Your task to perform on an android device: turn off priority inbox in the gmail app Image 0: 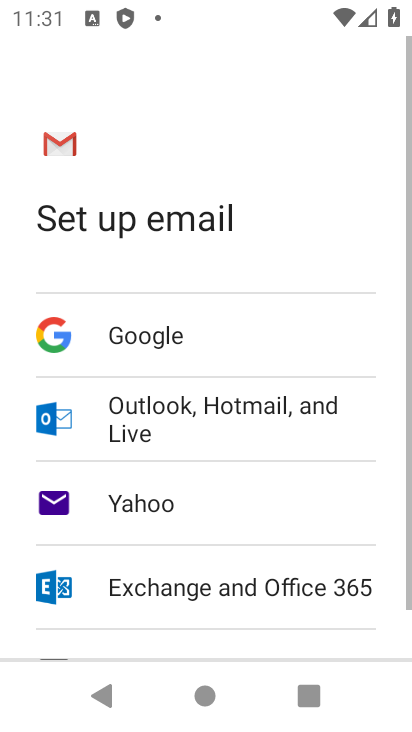
Step 0: press home button
Your task to perform on an android device: turn off priority inbox in the gmail app Image 1: 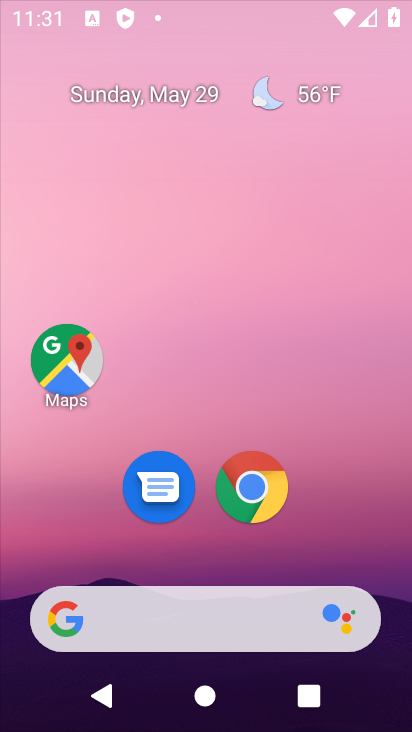
Step 1: drag from (224, 608) to (200, 205)
Your task to perform on an android device: turn off priority inbox in the gmail app Image 2: 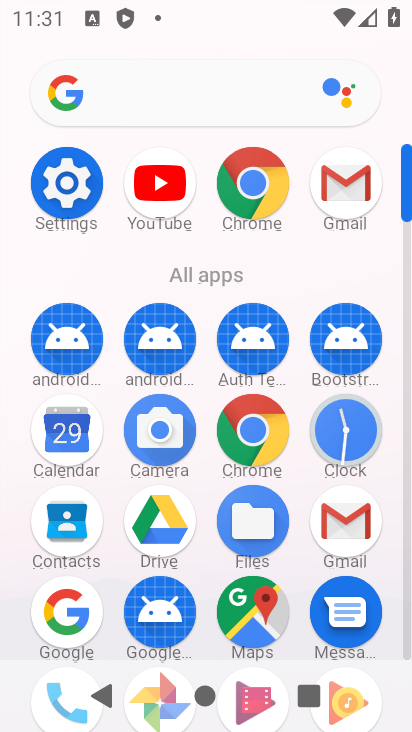
Step 2: click (345, 521)
Your task to perform on an android device: turn off priority inbox in the gmail app Image 3: 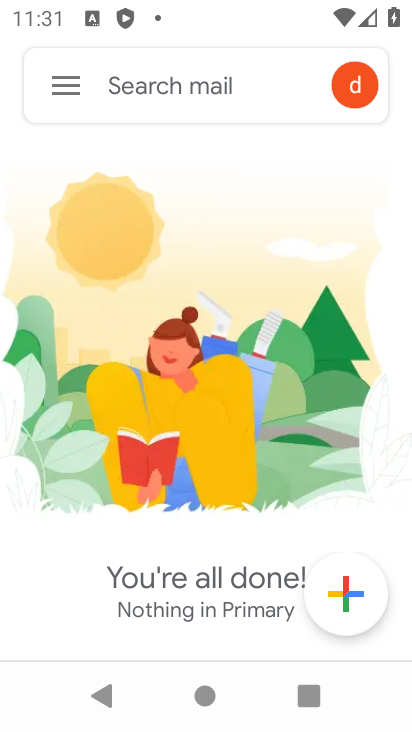
Step 3: click (72, 87)
Your task to perform on an android device: turn off priority inbox in the gmail app Image 4: 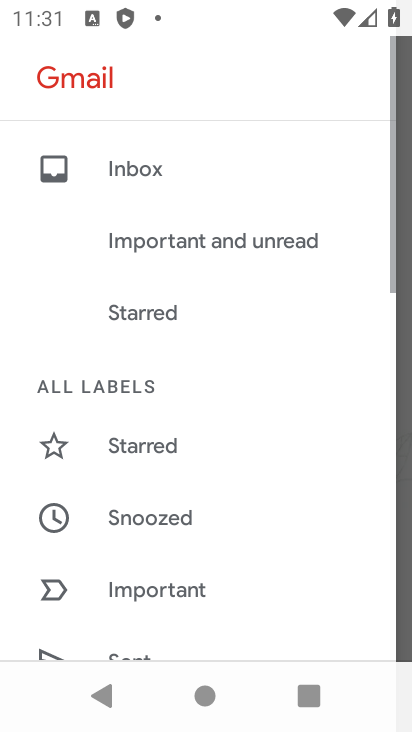
Step 4: drag from (114, 562) to (147, 199)
Your task to perform on an android device: turn off priority inbox in the gmail app Image 5: 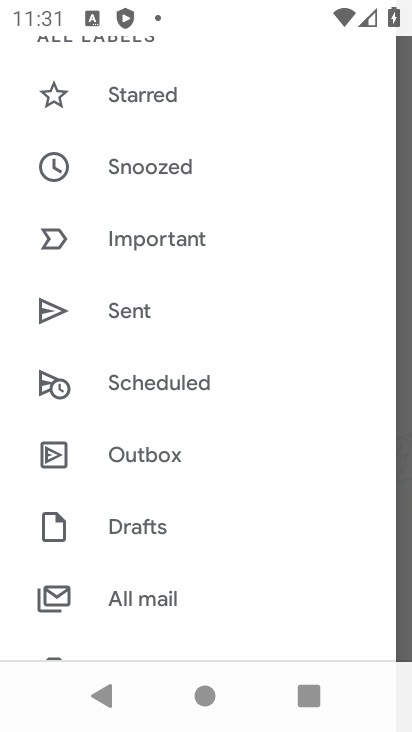
Step 5: drag from (155, 502) to (183, 167)
Your task to perform on an android device: turn off priority inbox in the gmail app Image 6: 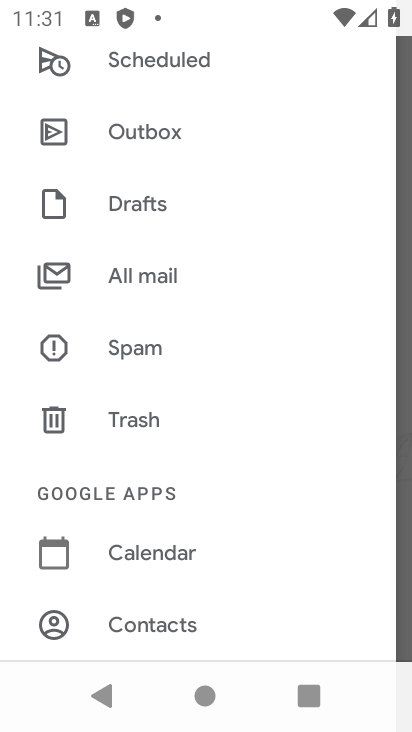
Step 6: drag from (148, 503) to (155, 74)
Your task to perform on an android device: turn off priority inbox in the gmail app Image 7: 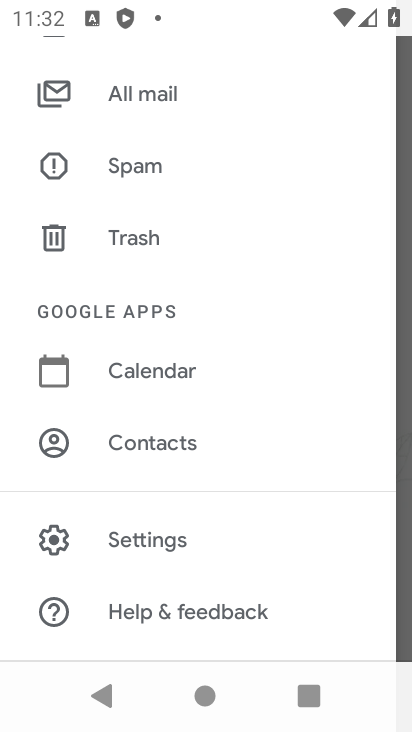
Step 7: click (120, 543)
Your task to perform on an android device: turn off priority inbox in the gmail app Image 8: 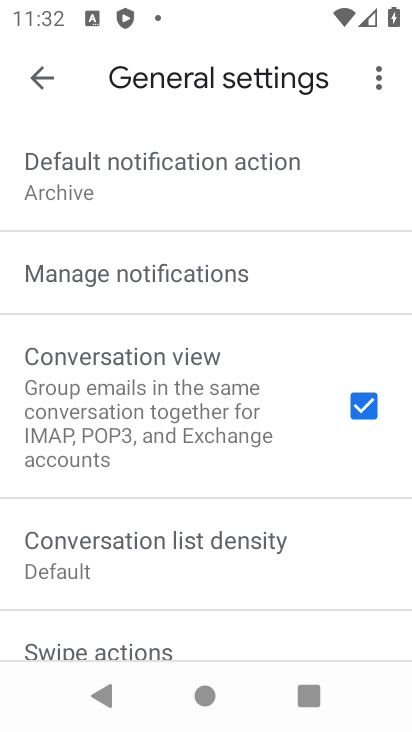
Step 8: click (44, 79)
Your task to perform on an android device: turn off priority inbox in the gmail app Image 9: 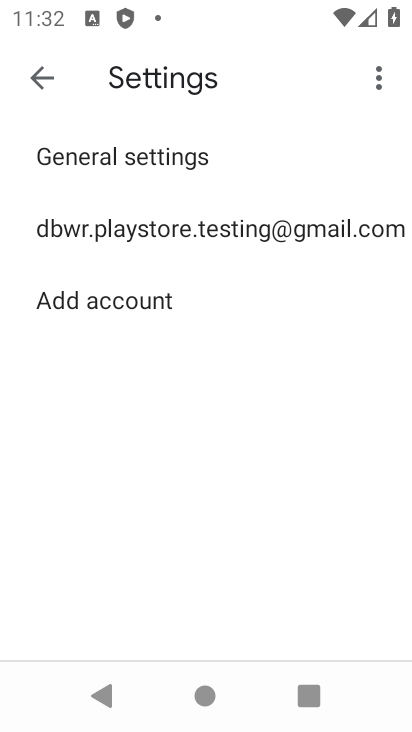
Step 9: click (121, 221)
Your task to perform on an android device: turn off priority inbox in the gmail app Image 10: 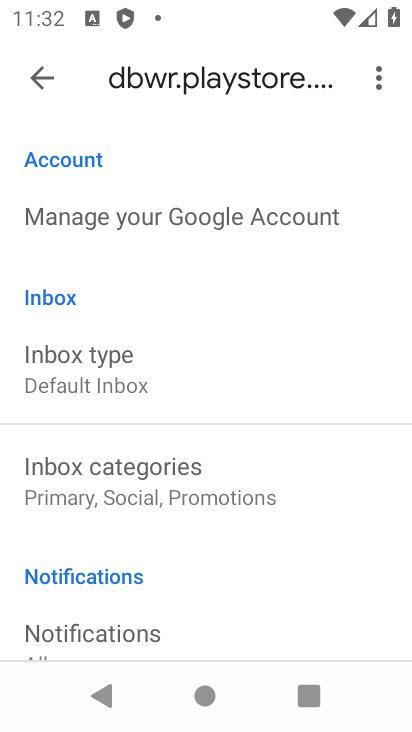
Step 10: click (93, 416)
Your task to perform on an android device: turn off priority inbox in the gmail app Image 11: 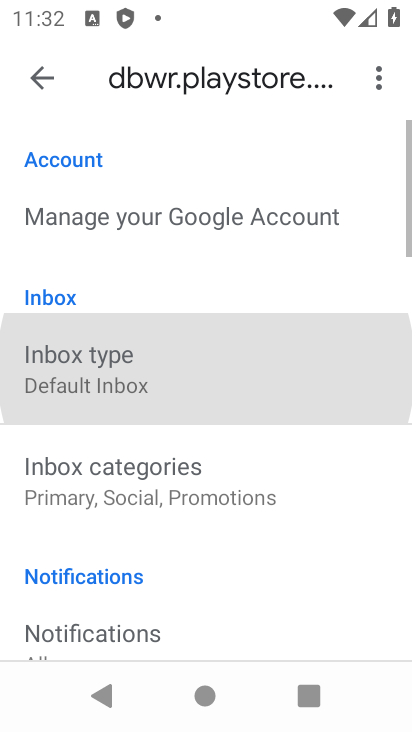
Step 11: drag from (128, 380) to (145, 136)
Your task to perform on an android device: turn off priority inbox in the gmail app Image 12: 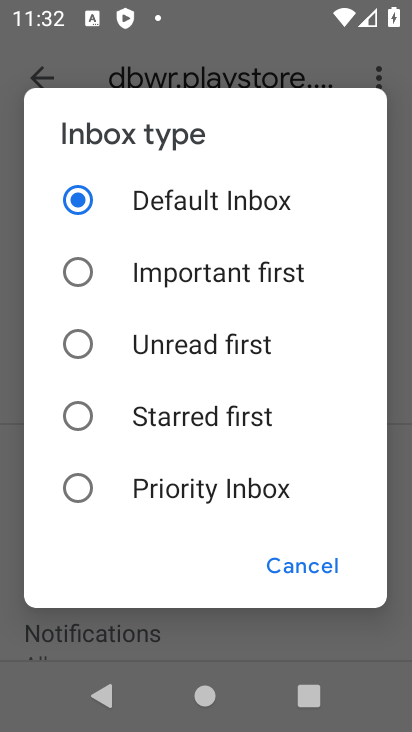
Step 12: click (326, 572)
Your task to perform on an android device: turn off priority inbox in the gmail app Image 13: 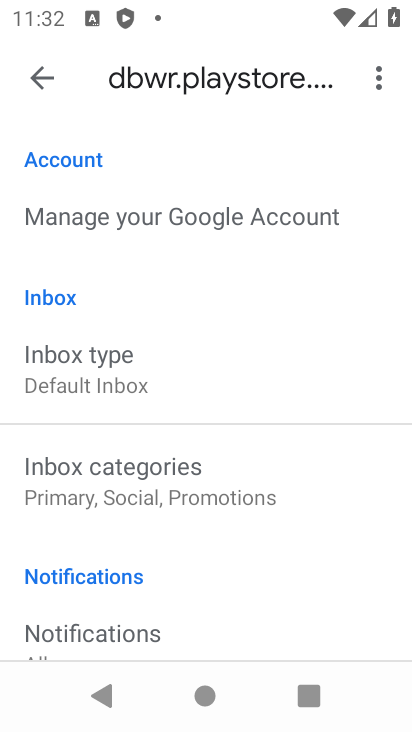
Step 13: drag from (208, 546) to (246, 159)
Your task to perform on an android device: turn off priority inbox in the gmail app Image 14: 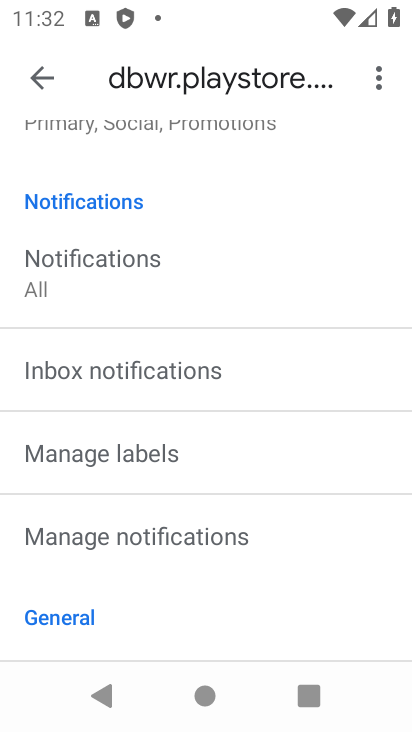
Step 14: drag from (169, 545) to (189, 146)
Your task to perform on an android device: turn off priority inbox in the gmail app Image 15: 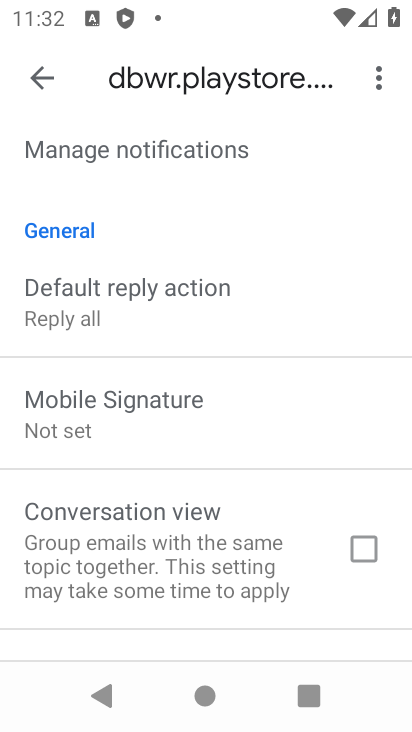
Step 15: drag from (141, 520) to (169, 233)
Your task to perform on an android device: turn off priority inbox in the gmail app Image 16: 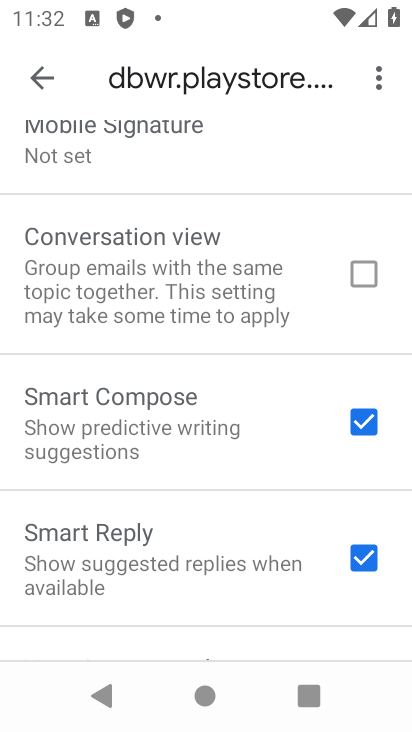
Step 16: drag from (171, 512) to (174, 279)
Your task to perform on an android device: turn off priority inbox in the gmail app Image 17: 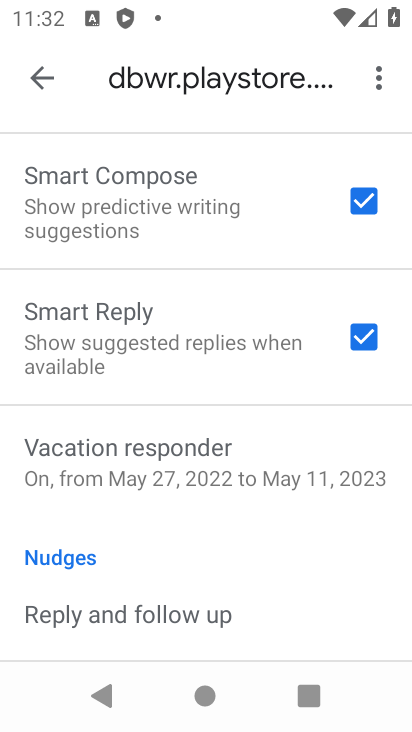
Step 17: drag from (179, 337) to (142, 573)
Your task to perform on an android device: turn off priority inbox in the gmail app Image 18: 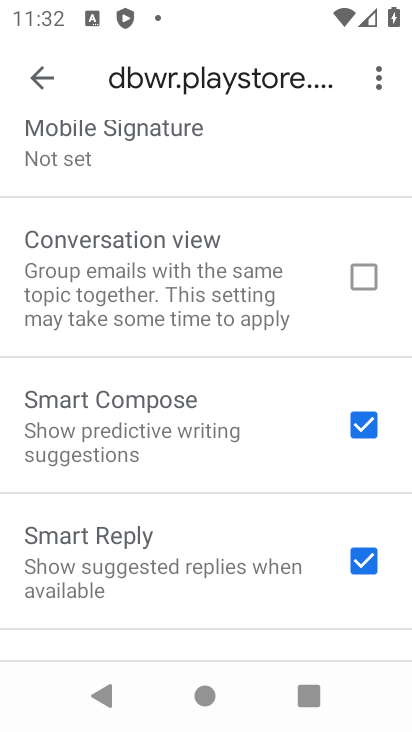
Step 18: drag from (171, 236) to (132, 635)
Your task to perform on an android device: turn off priority inbox in the gmail app Image 19: 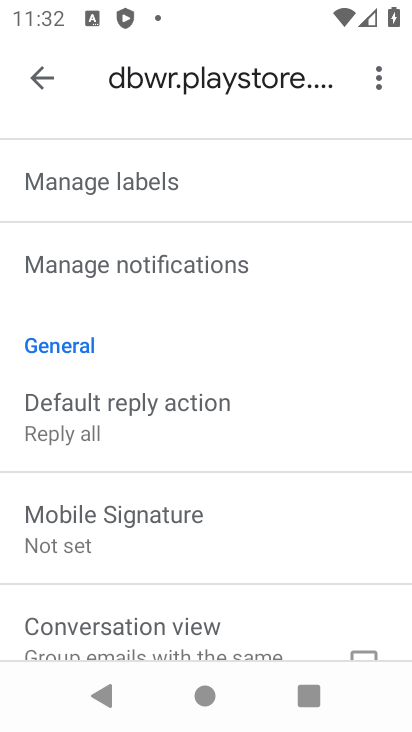
Step 19: drag from (168, 352) to (145, 719)
Your task to perform on an android device: turn off priority inbox in the gmail app Image 20: 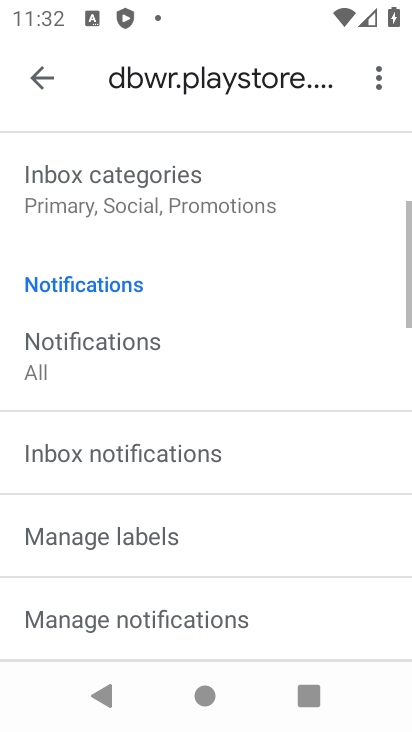
Step 20: drag from (192, 384) to (181, 642)
Your task to perform on an android device: turn off priority inbox in the gmail app Image 21: 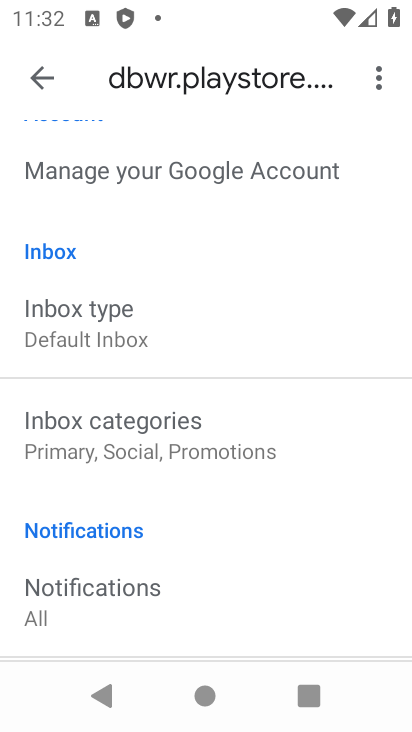
Step 21: drag from (184, 322) to (182, 652)
Your task to perform on an android device: turn off priority inbox in the gmail app Image 22: 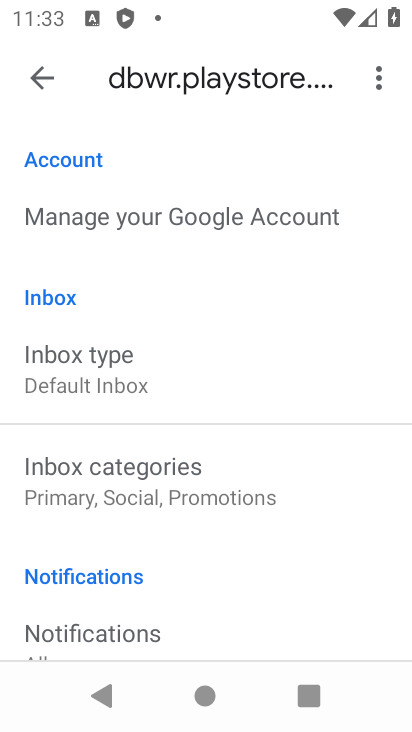
Step 22: click (131, 386)
Your task to perform on an android device: turn off priority inbox in the gmail app Image 23: 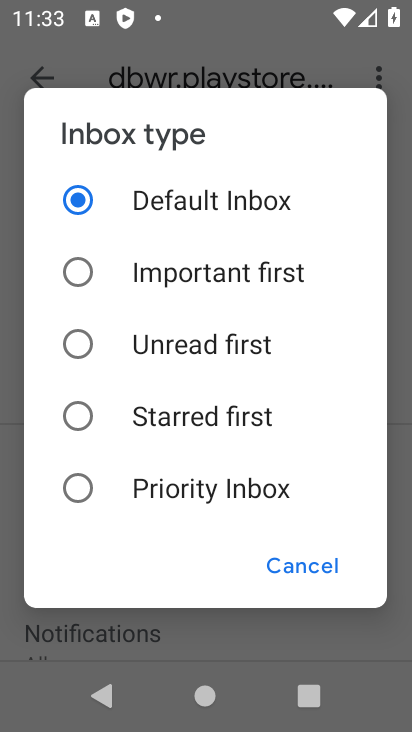
Step 23: task complete